Your task to perform on an android device: Open Android settings Image 0: 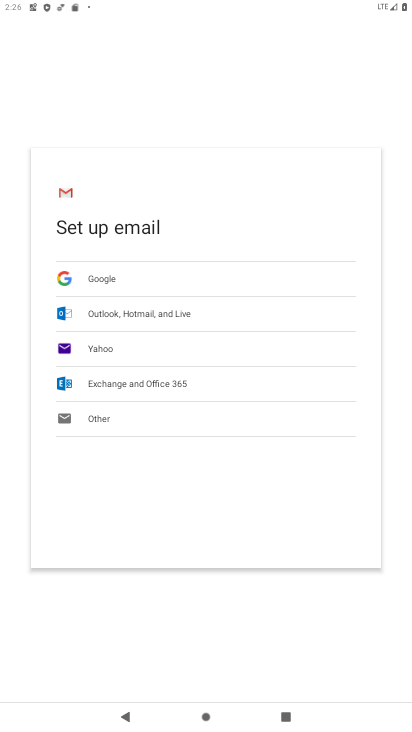
Step 0: press home button
Your task to perform on an android device: Open Android settings Image 1: 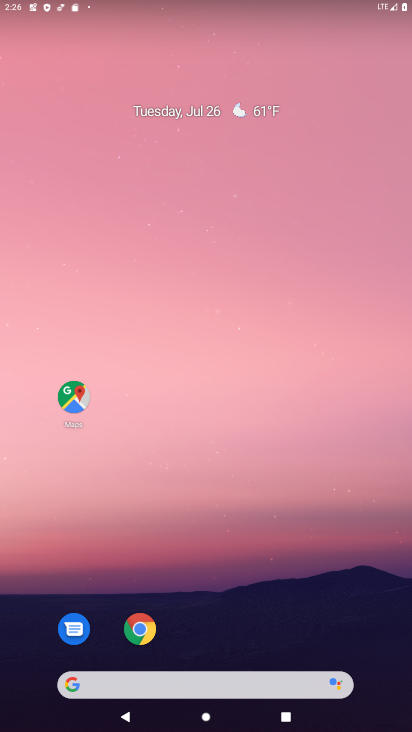
Step 1: drag from (210, 563) to (183, 71)
Your task to perform on an android device: Open Android settings Image 2: 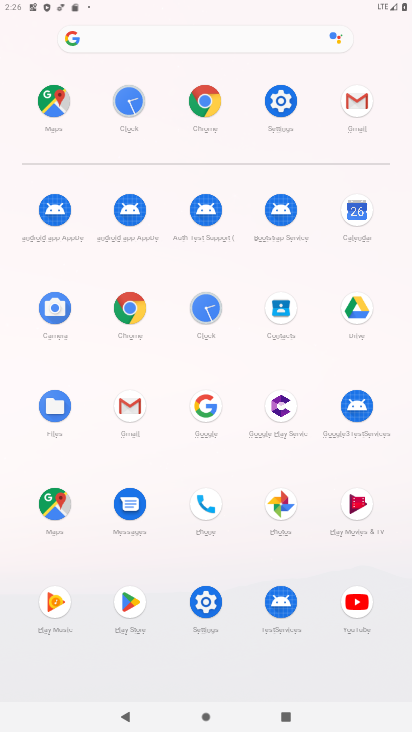
Step 2: click (279, 99)
Your task to perform on an android device: Open Android settings Image 3: 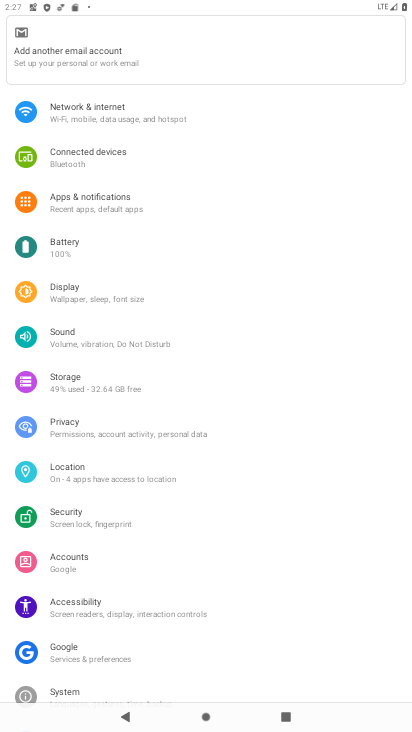
Step 3: task complete